Your task to perform on an android device: choose inbox layout in the gmail app Image 0: 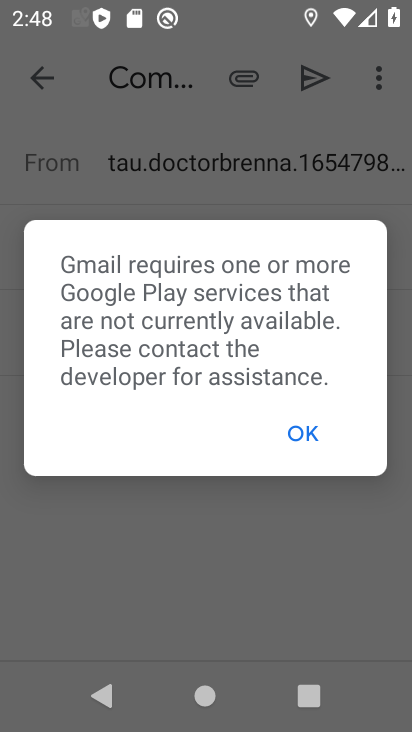
Step 0: click (315, 424)
Your task to perform on an android device: choose inbox layout in the gmail app Image 1: 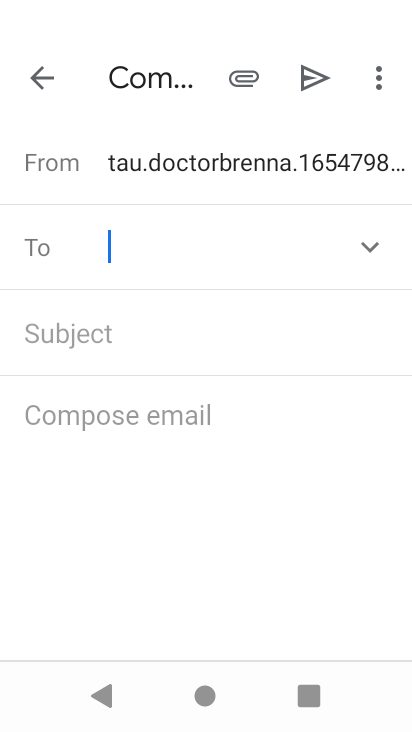
Step 1: press back button
Your task to perform on an android device: choose inbox layout in the gmail app Image 2: 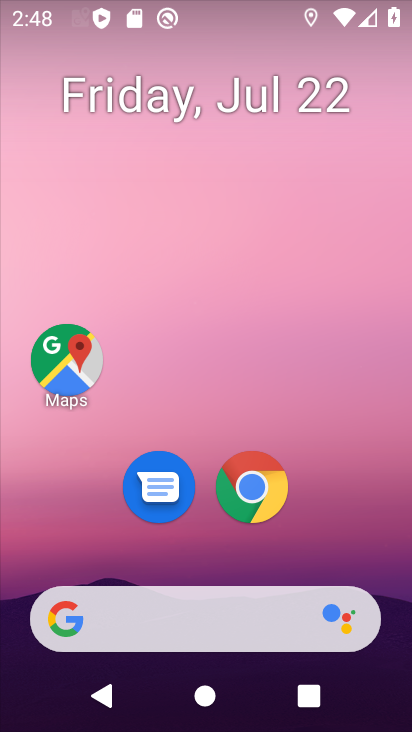
Step 2: drag from (184, 552) to (298, 1)
Your task to perform on an android device: choose inbox layout in the gmail app Image 3: 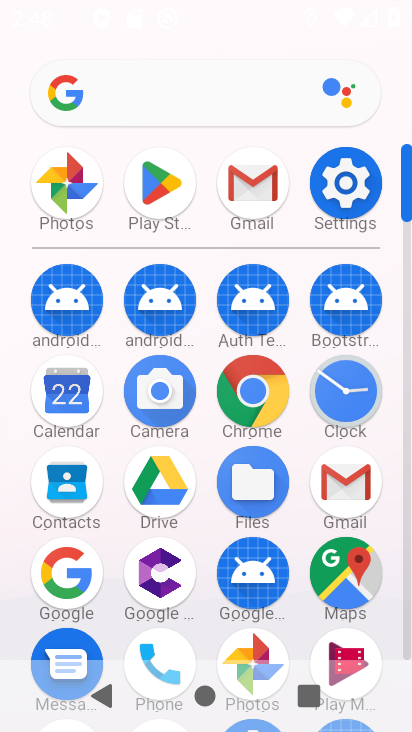
Step 3: click (234, 180)
Your task to perform on an android device: choose inbox layout in the gmail app Image 4: 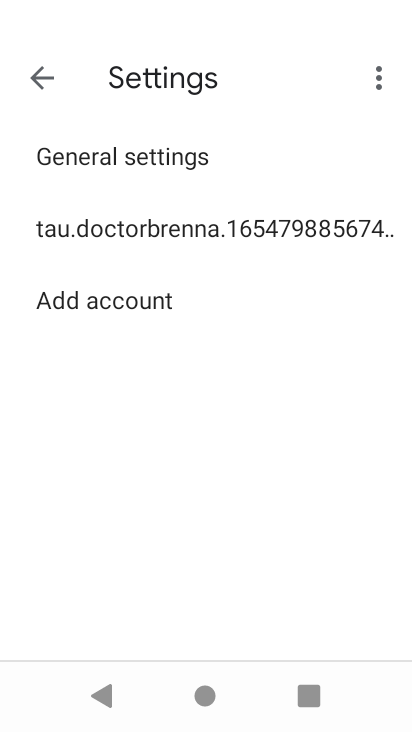
Step 4: click (133, 226)
Your task to perform on an android device: choose inbox layout in the gmail app Image 5: 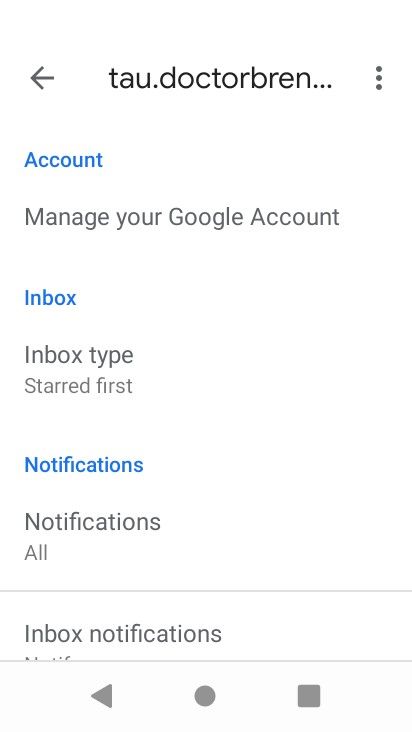
Step 5: click (90, 380)
Your task to perform on an android device: choose inbox layout in the gmail app Image 6: 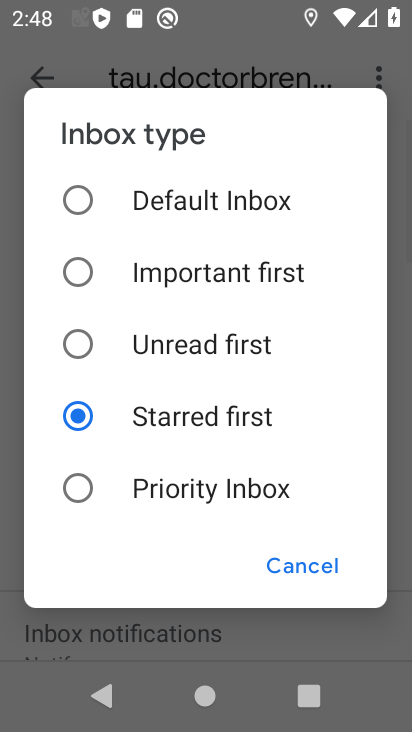
Step 6: click (83, 492)
Your task to perform on an android device: choose inbox layout in the gmail app Image 7: 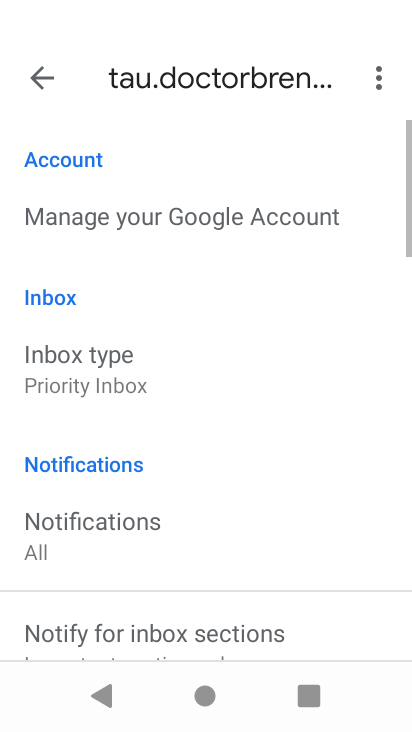
Step 7: task complete